Your task to perform on an android device: Is it going to rain this weekend? Image 0: 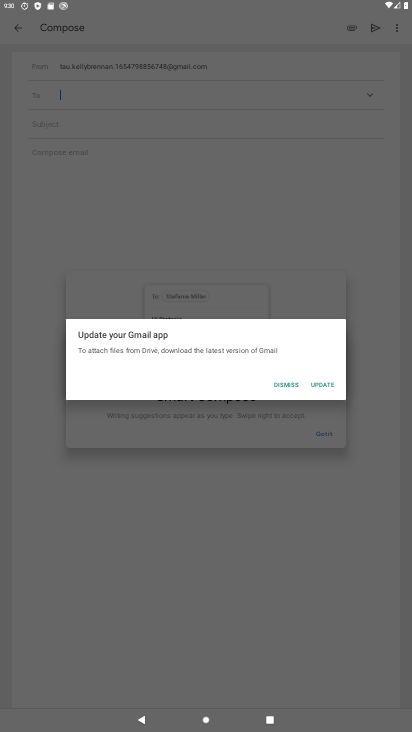
Step 0: press home button
Your task to perform on an android device: Is it going to rain this weekend? Image 1: 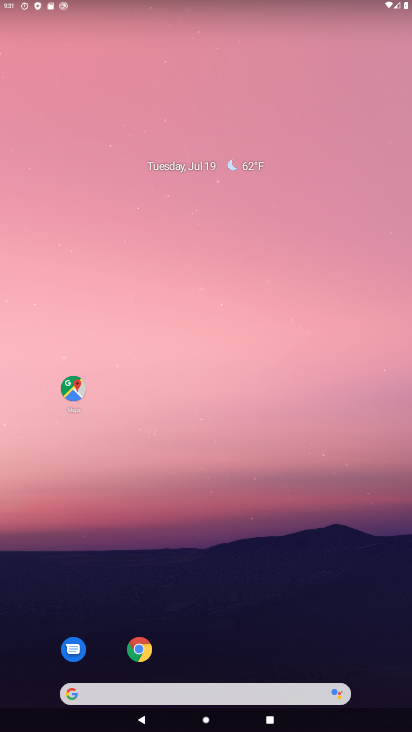
Step 1: drag from (273, 596) to (198, 70)
Your task to perform on an android device: Is it going to rain this weekend? Image 2: 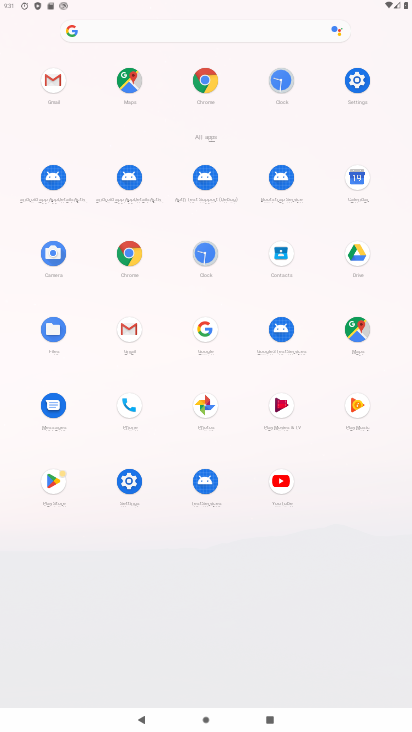
Step 2: drag from (235, 46) to (228, 672)
Your task to perform on an android device: Is it going to rain this weekend? Image 3: 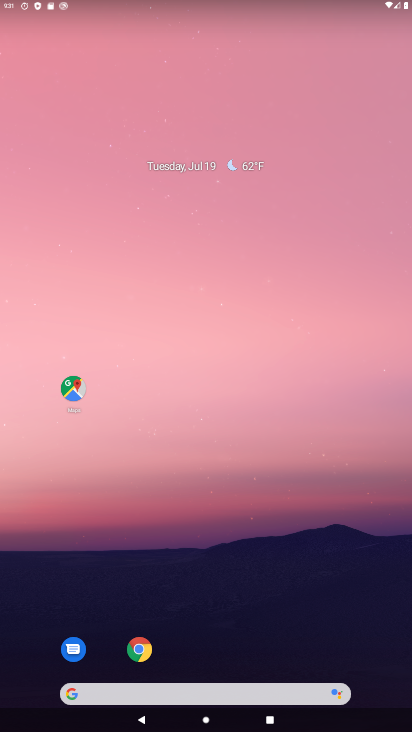
Step 3: click (257, 165)
Your task to perform on an android device: Is it going to rain this weekend? Image 4: 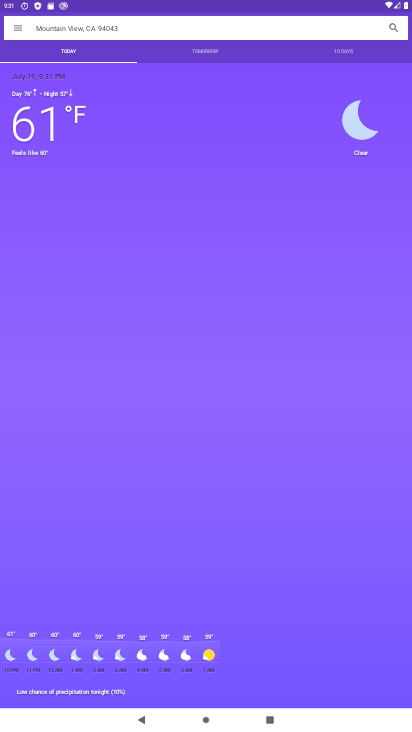
Step 4: click (205, 54)
Your task to perform on an android device: Is it going to rain this weekend? Image 5: 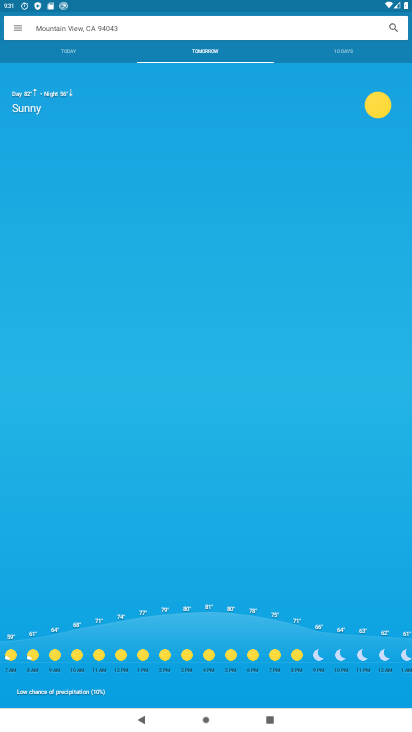
Step 5: click (341, 55)
Your task to perform on an android device: Is it going to rain this weekend? Image 6: 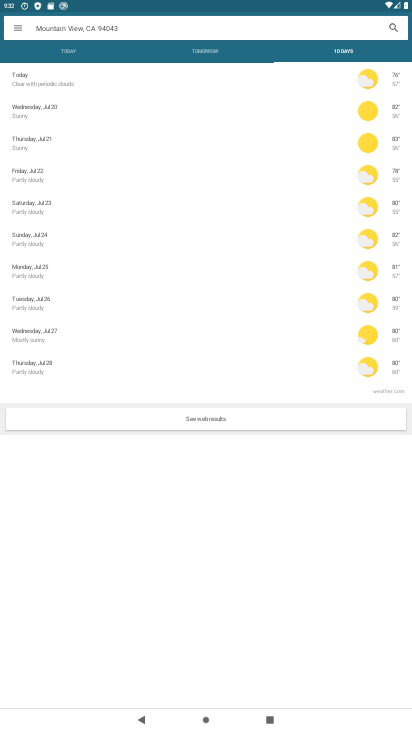
Step 6: task complete